Your task to perform on an android device: open app "TextNow: Call + Text Unlimited" (install if not already installed), go to login, and select forgot password Image 0: 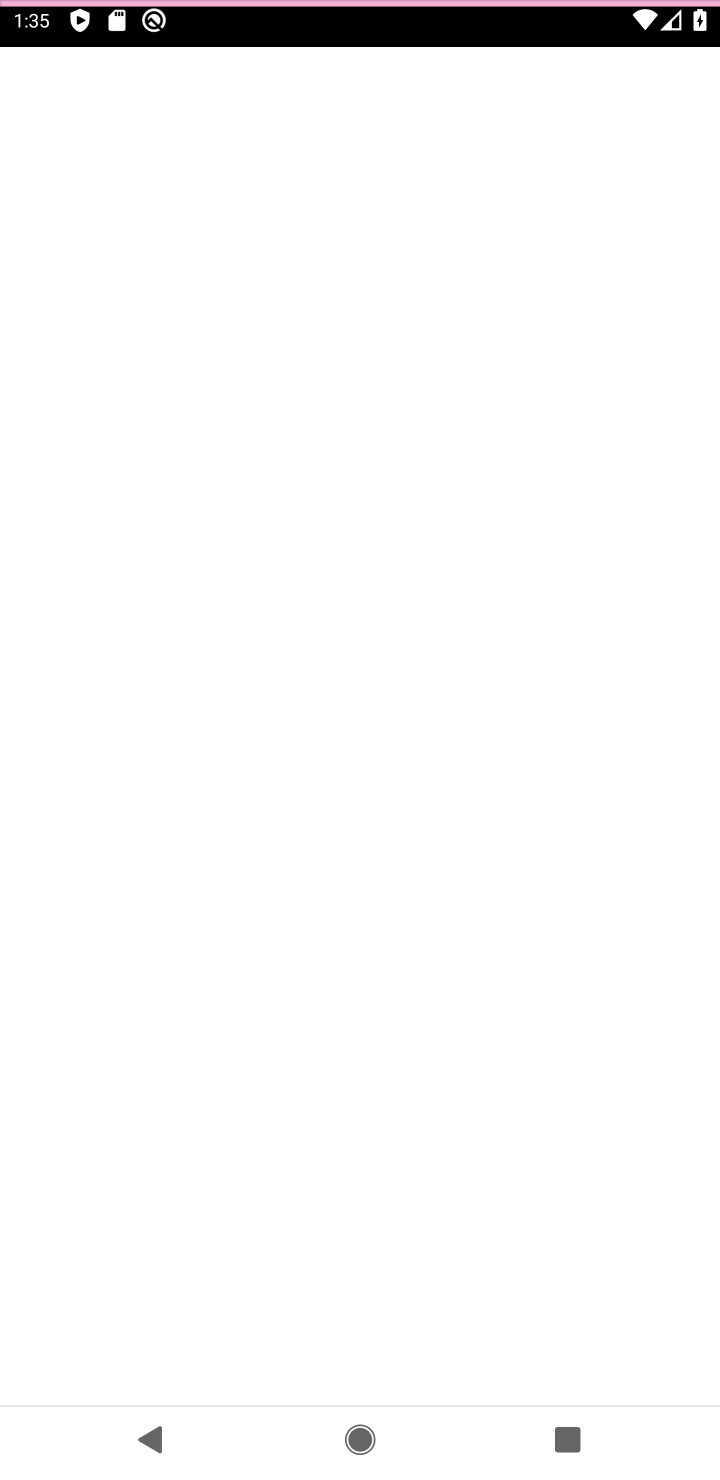
Step 0: press home button
Your task to perform on an android device: open app "TextNow: Call + Text Unlimited" (install if not already installed), go to login, and select forgot password Image 1: 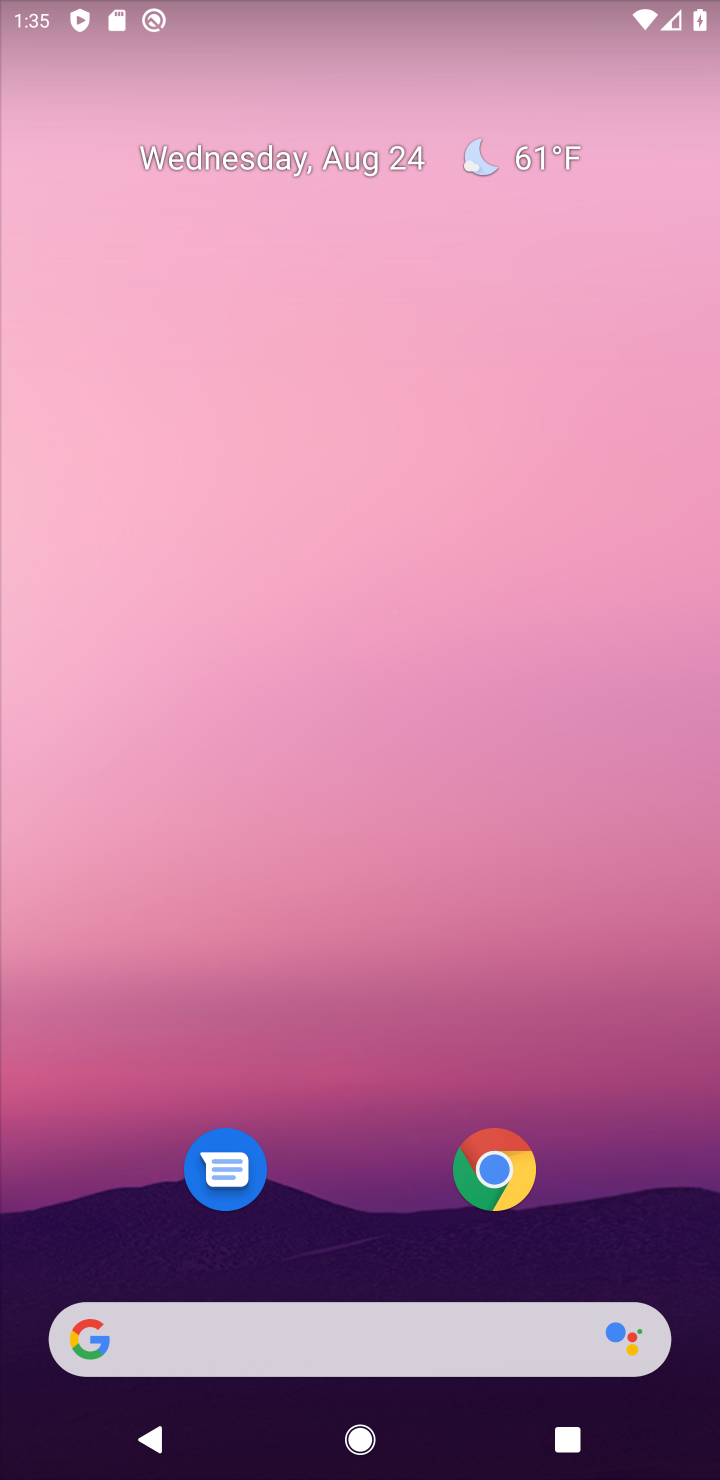
Step 1: drag from (406, 1259) to (474, 175)
Your task to perform on an android device: open app "TextNow: Call + Text Unlimited" (install if not already installed), go to login, and select forgot password Image 2: 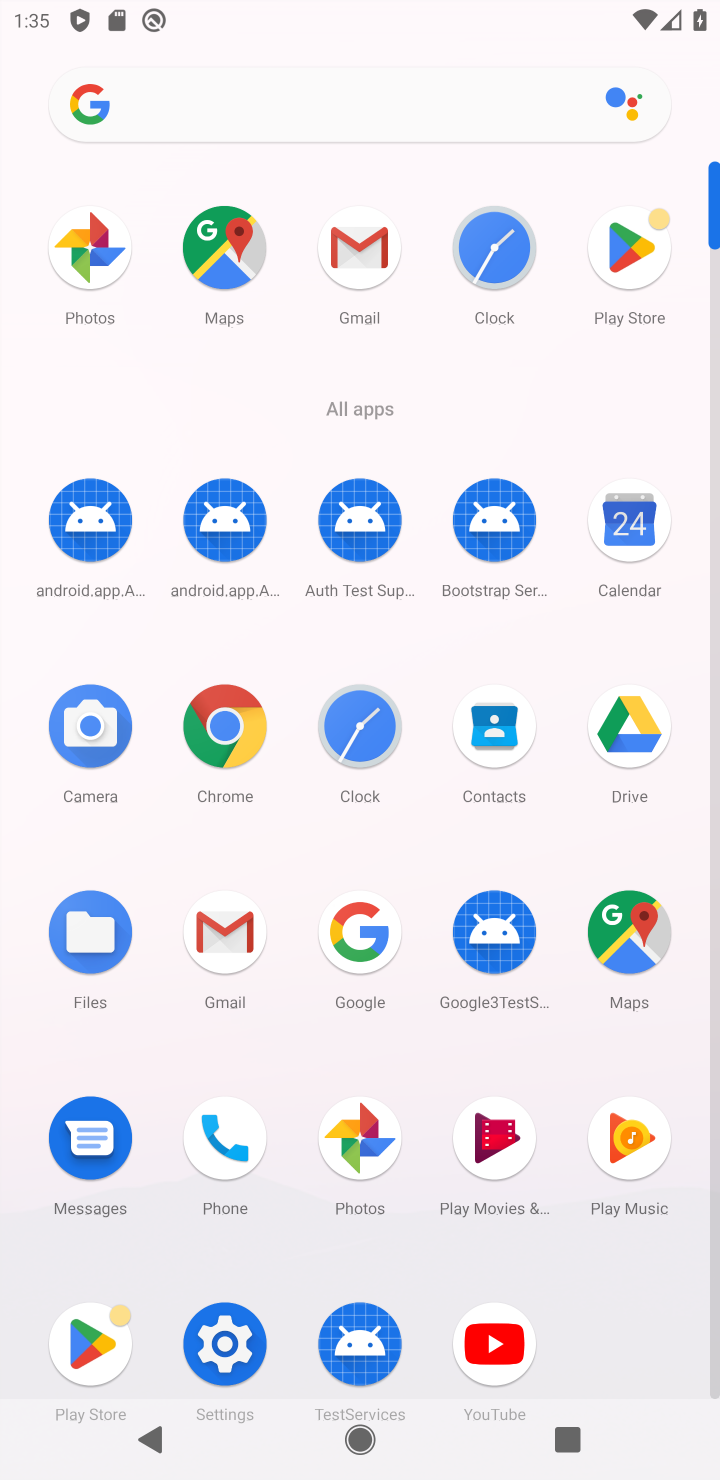
Step 2: click (63, 1324)
Your task to perform on an android device: open app "TextNow: Call + Text Unlimited" (install if not already installed), go to login, and select forgot password Image 3: 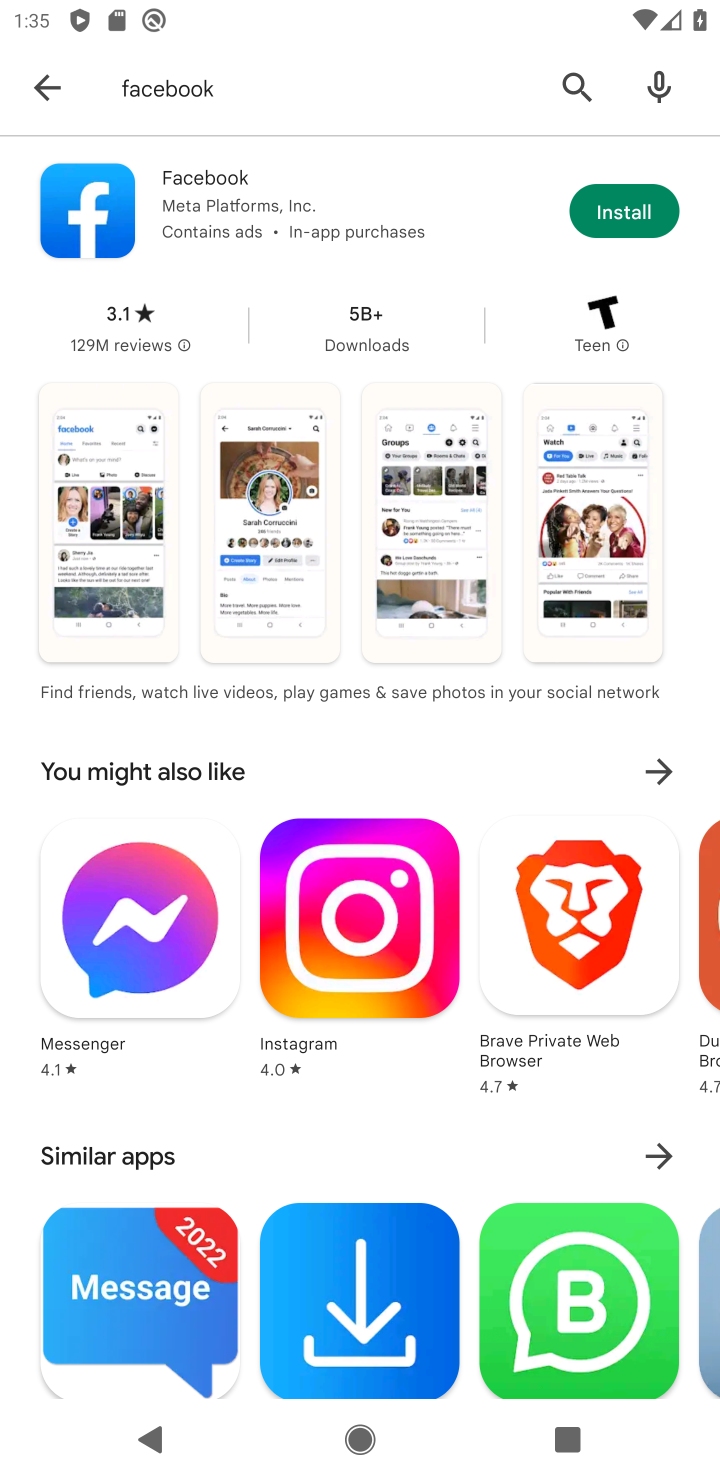
Step 3: click (46, 118)
Your task to perform on an android device: open app "TextNow: Call + Text Unlimited" (install if not already installed), go to login, and select forgot password Image 4: 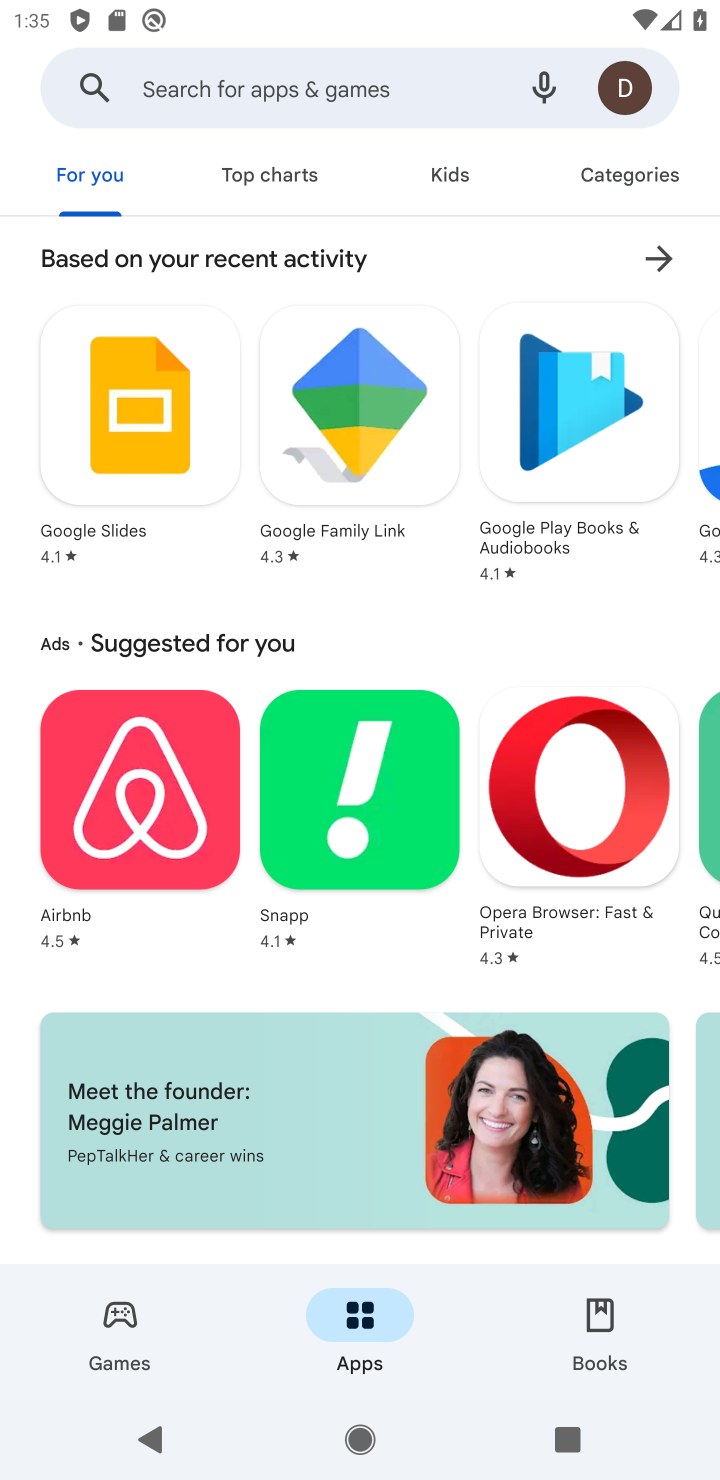
Step 4: click (249, 87)
Your task to perform on an android device: open app "TextNow: Call + Text Unlimited" (install if not already installed), go to login, and select forgot password Image 5: 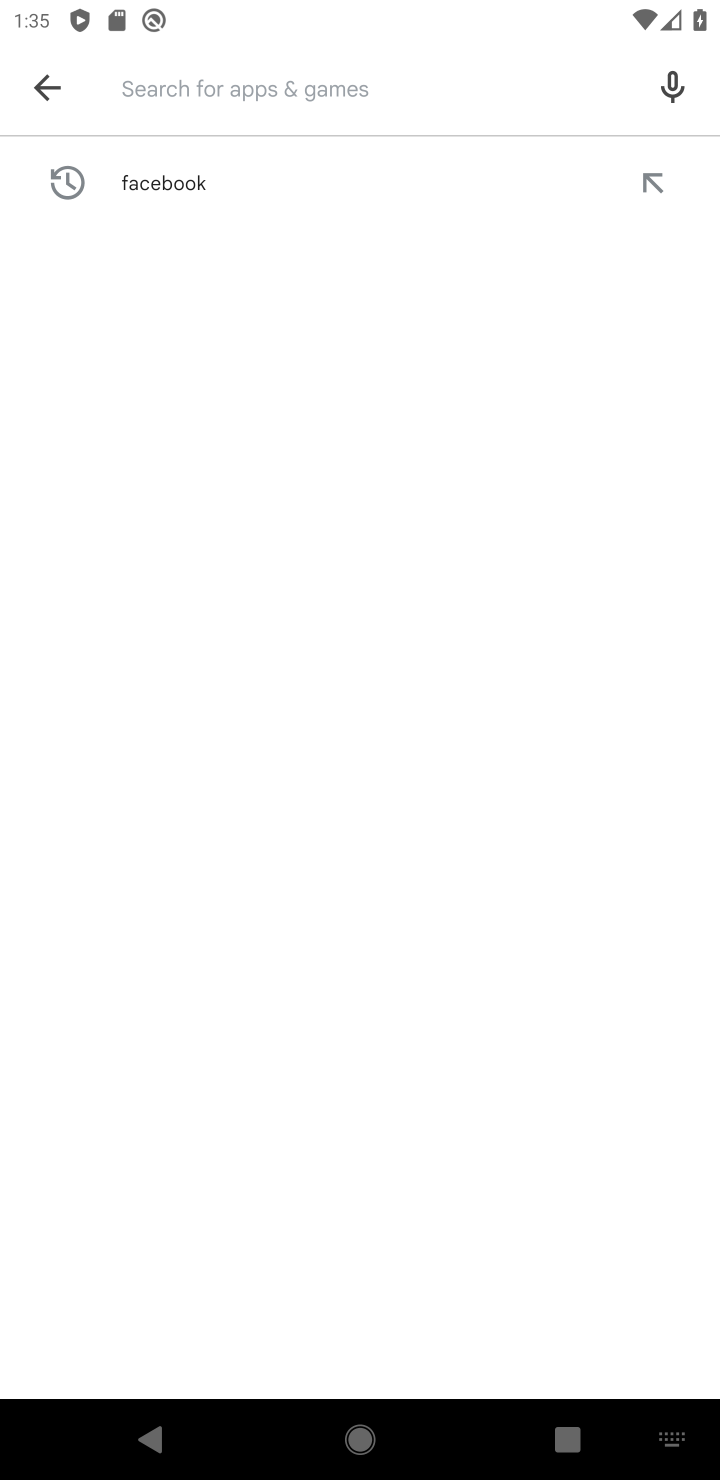
Step 5: type "TextNow: Call + Text Unlimited"
Your task to perform on an android device: open app "TextNow: Call + Text Unlimited" (install if not already installed), go to login, and select forgot password Image 6: 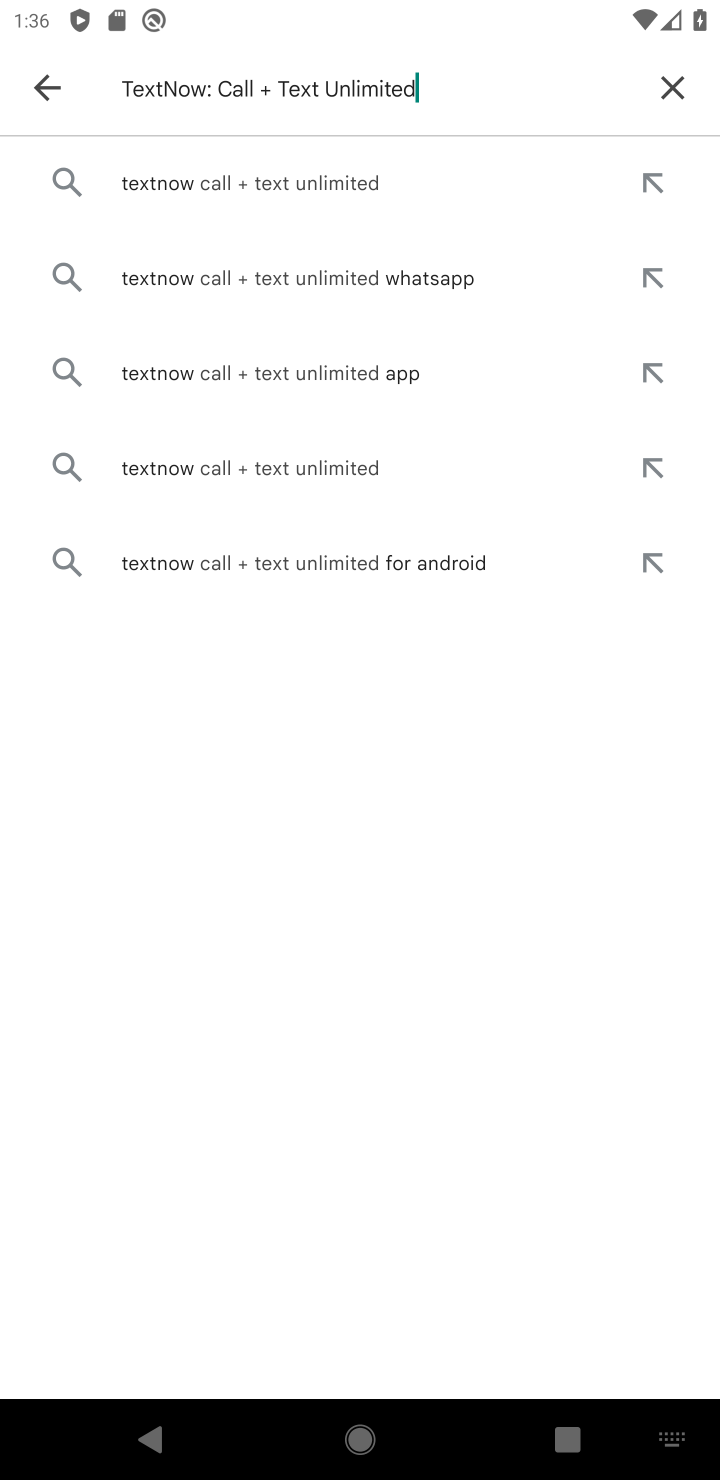
Step 6: click (156, 193)
Your task to perform on an android device: open app "TextNow: Call + Text Unlimited" (install if not already installed), go to login, and select forgot password Image 7: 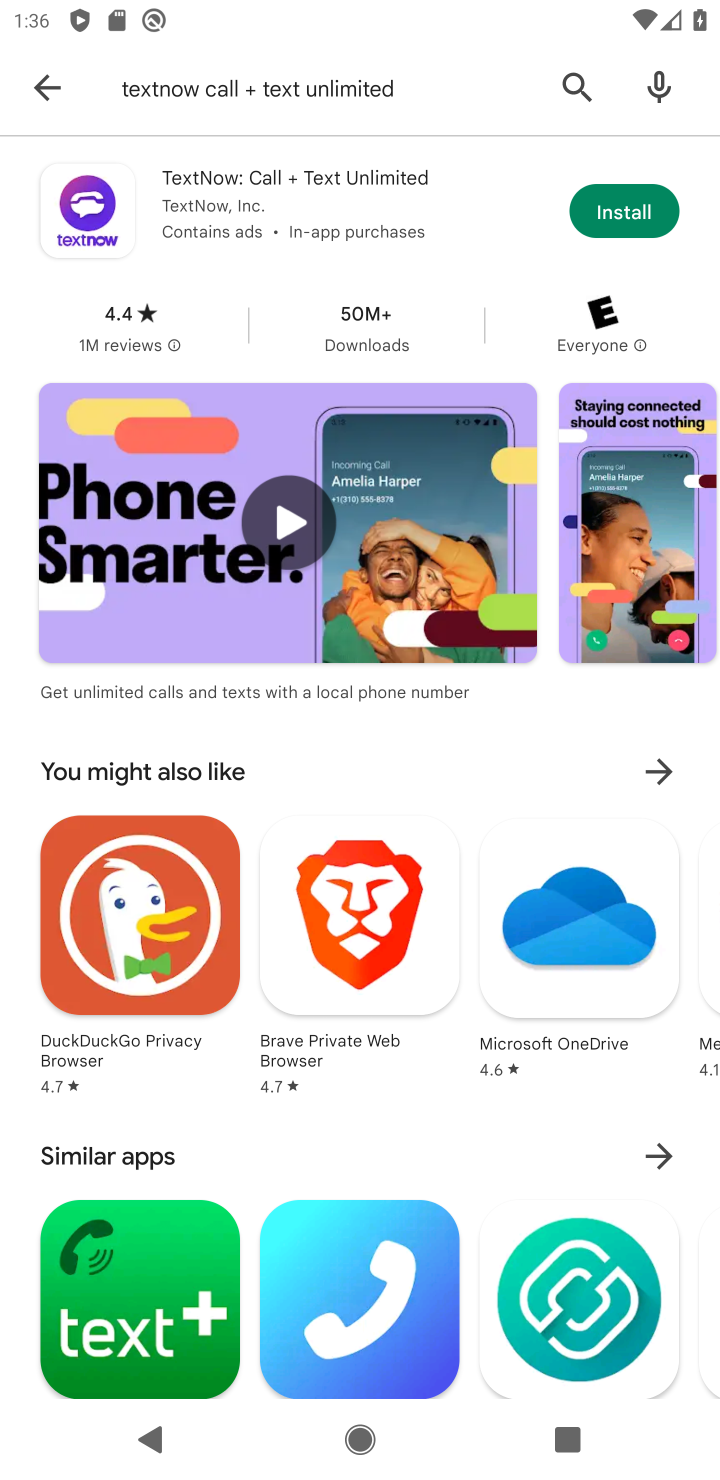
Step 7: click (637, 241)
Your task to perform on an android device: open app "TextNow: Call + Text Unlimited" (install if not already installed), go to login, and select forgot password Image 8: 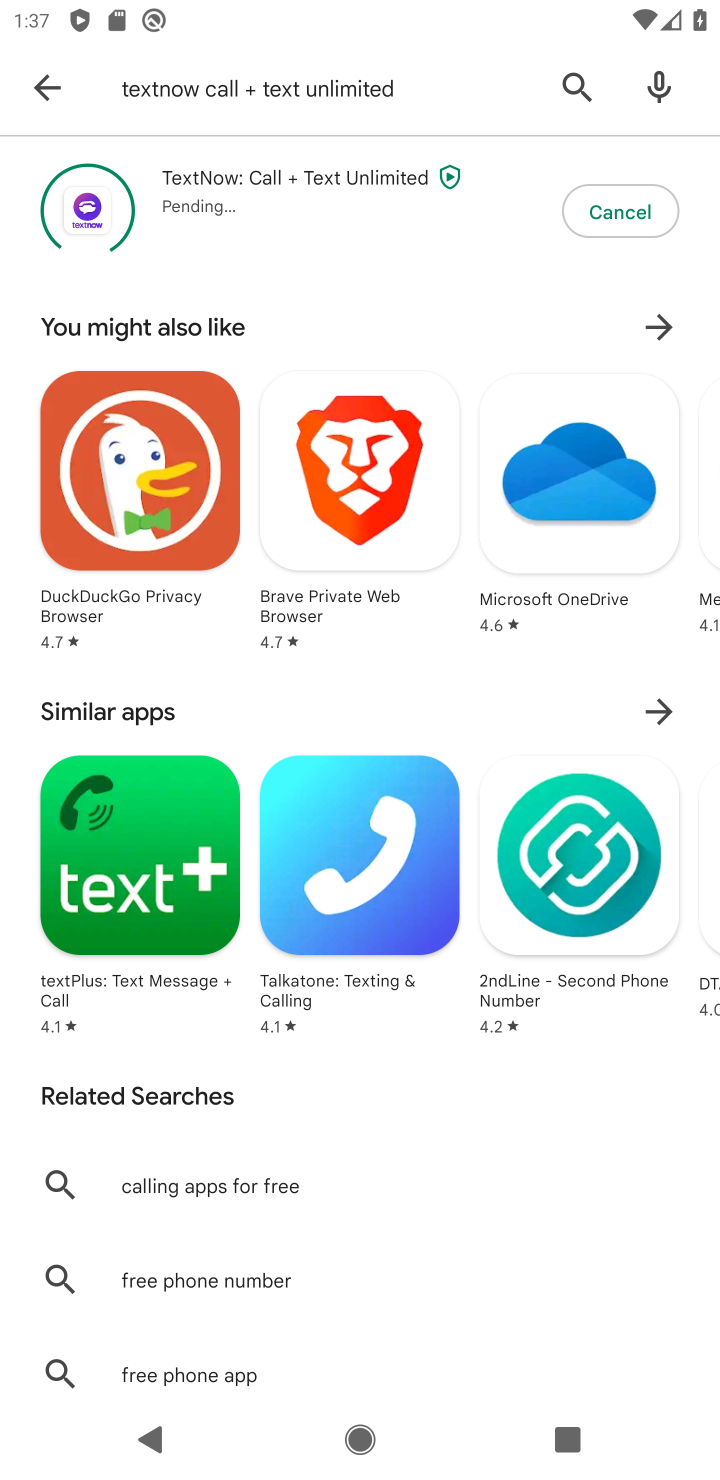
Step 8: click (60, 82)
Your task to perform on an android device: open app "TextNow: Call + Text Unlimited" (install if not already installed), go to login, and select forgot password Image 9: 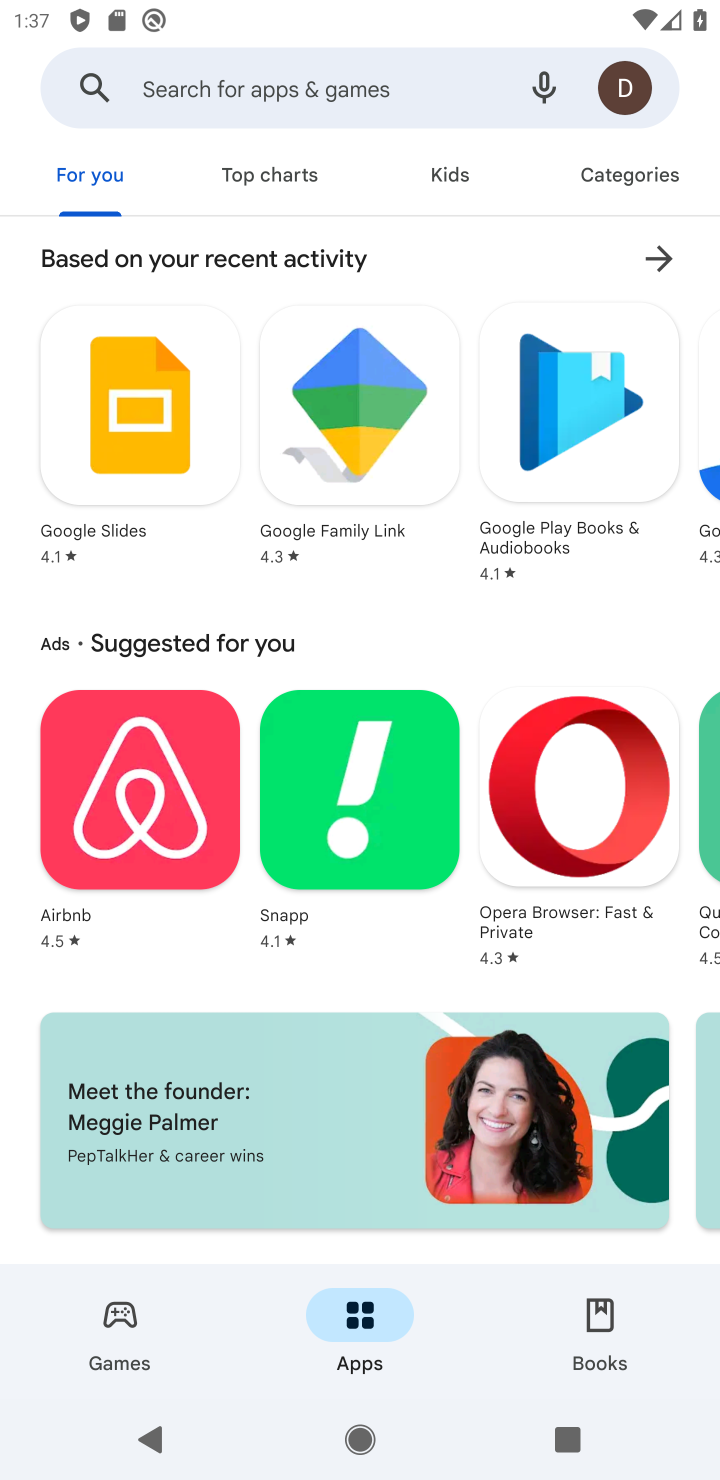
Step 9: click (638, 94)
Your task to perform on an android device: open app "TextNow: Call + Text Unlimited" (install if not already installed), go to login, and select forgot password Image 10: 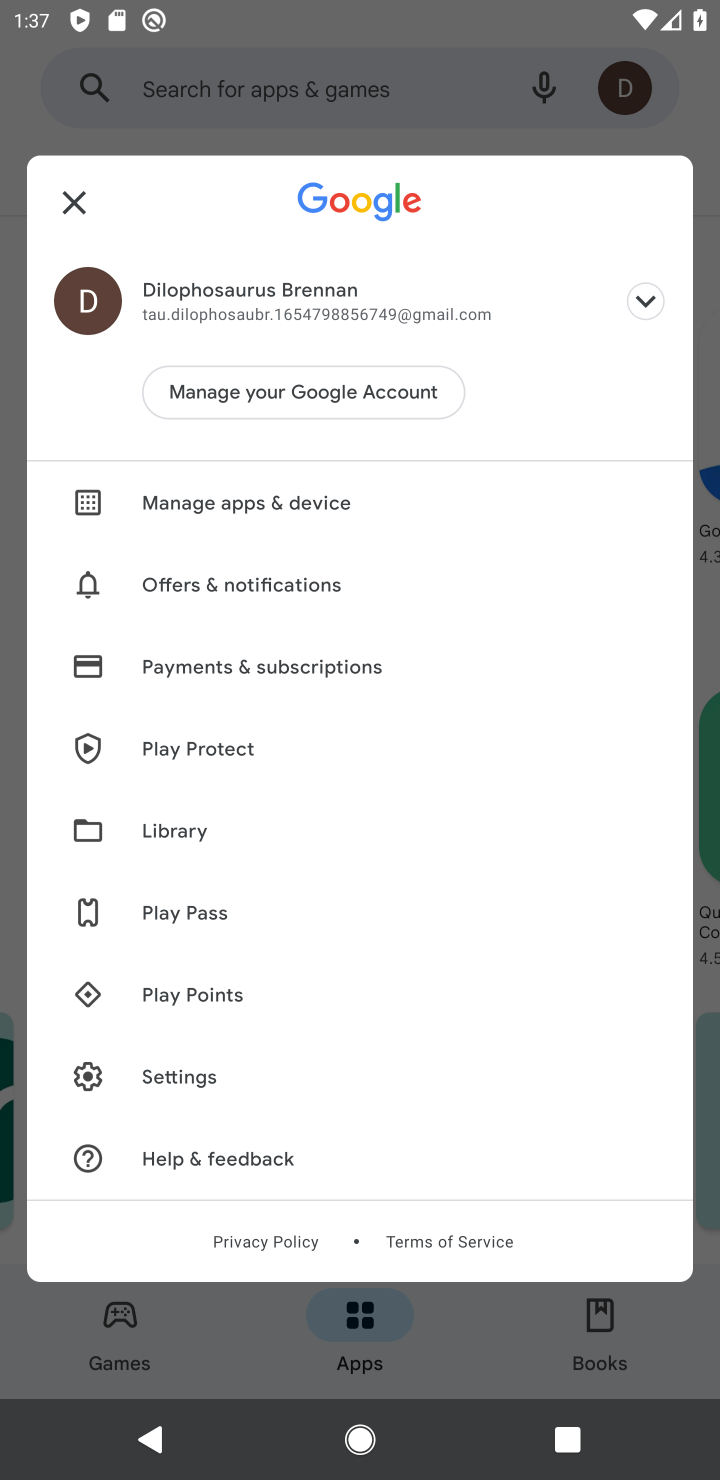
Step 10: click (229, 500)
Your task to perform on an android device: open app "TextNow: Call + Text Unlimited" (install if not already installed), go to login, and select forgot password Image 11: 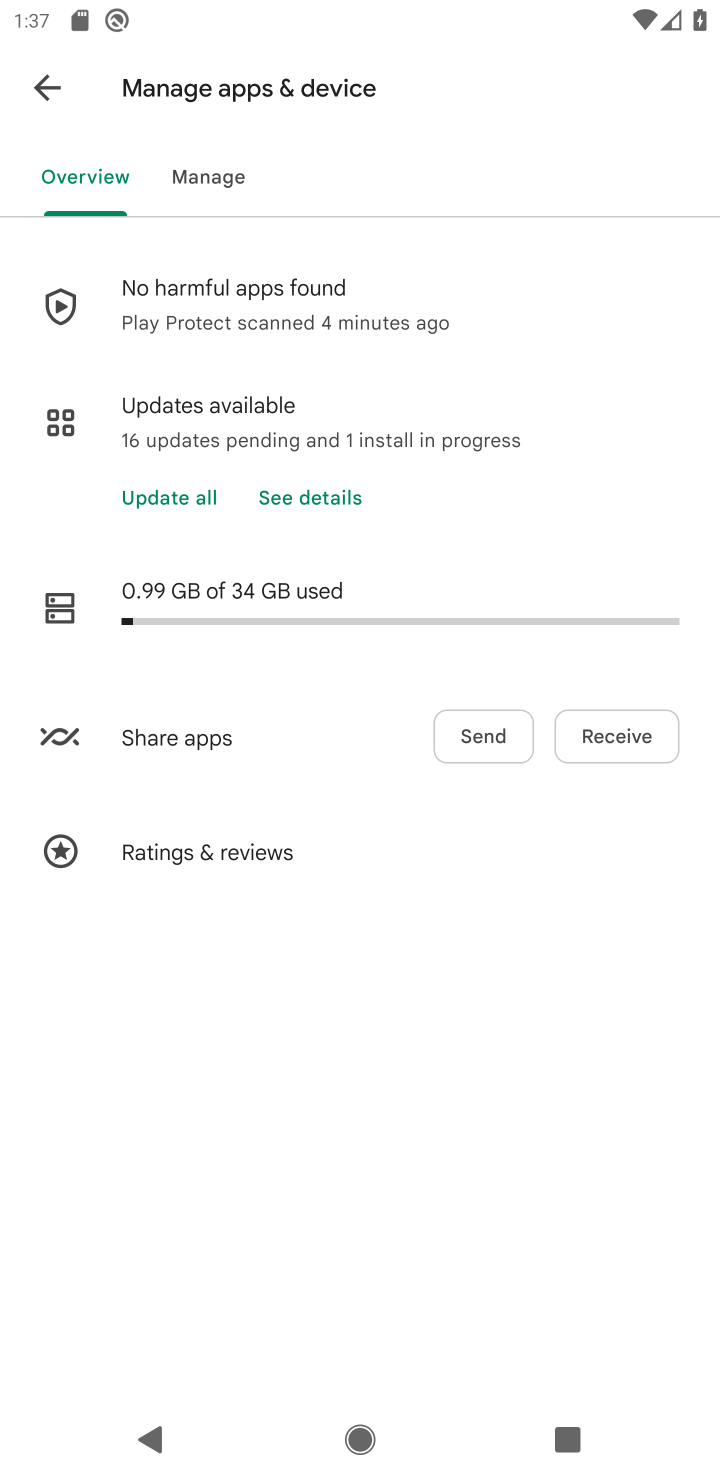
Step 11: click (196, 425)
Your task to perform on an android device: open app "TextNow: Call + Text Unlimited" (install if not already installed), go to login, and select forgot password Image 12: 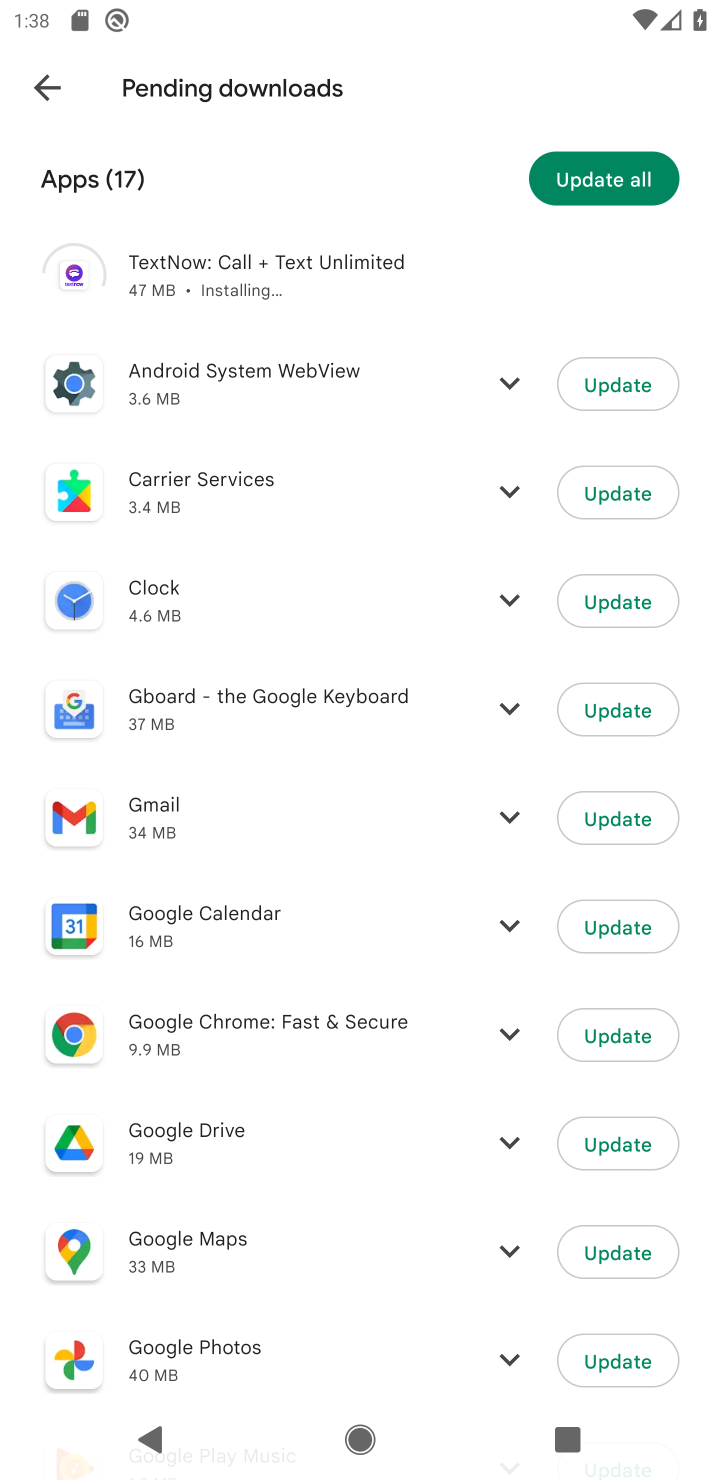
Step 12: click (271, 295)
Your task to perform on an android device: open app "TextNow: Call + Text Unlimited" (install if not already installed), go to login, and select forgot password Image 13: 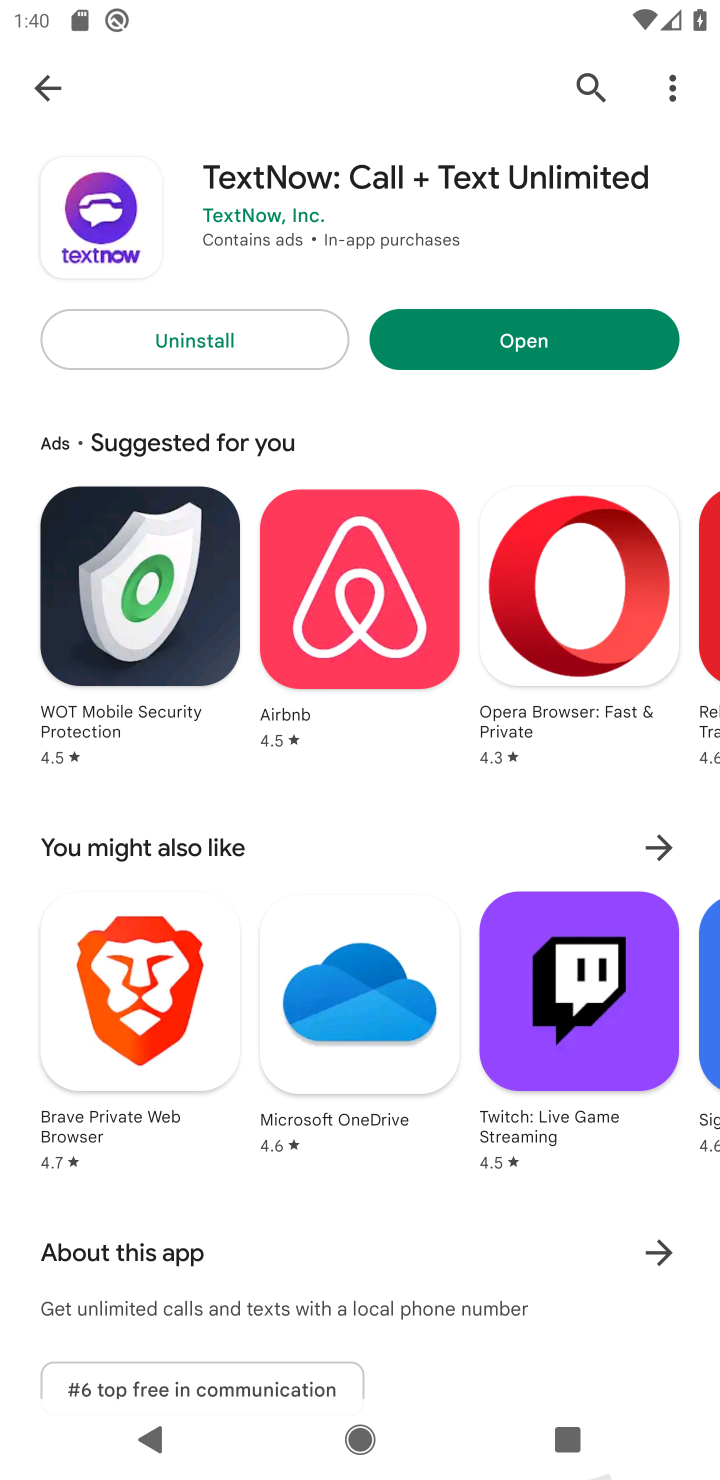
Step 13: click (591, 334)
Your task to perform on an android device: open app "TextNow: Call + Text Unlimited" (install if not already installed), go to login, and select forgot password Image 14: 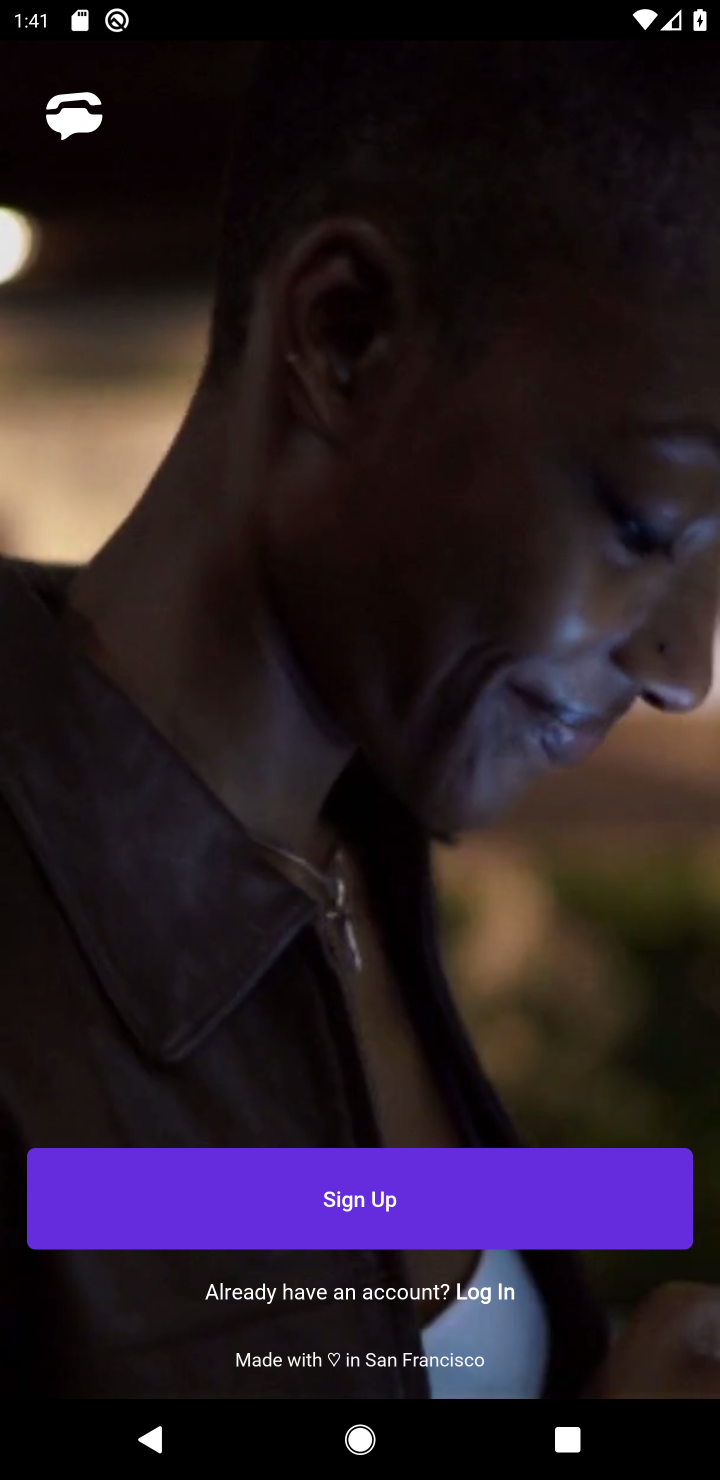
Step 14: click (475, 1282)
Your task to perform on an android device: open app "TextNow: Call + Text Unlimited" (install if not already installed), go to login, and select forgot password Image 15: 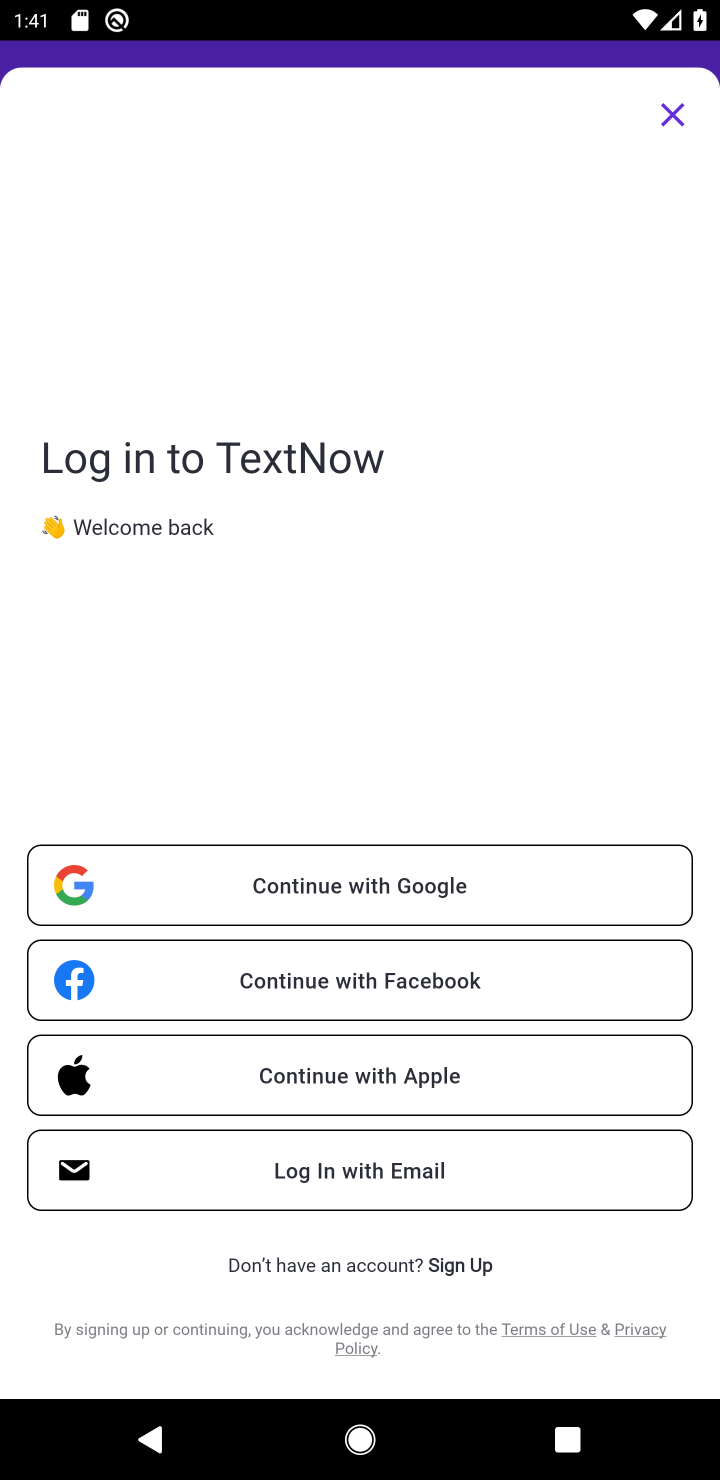
Step 15: click (437, 885)
Your task to perform on an android device: open app "TextNow: Call + Text Unlimited" (install if not already installed), go to login, and select forgot password Image 16: 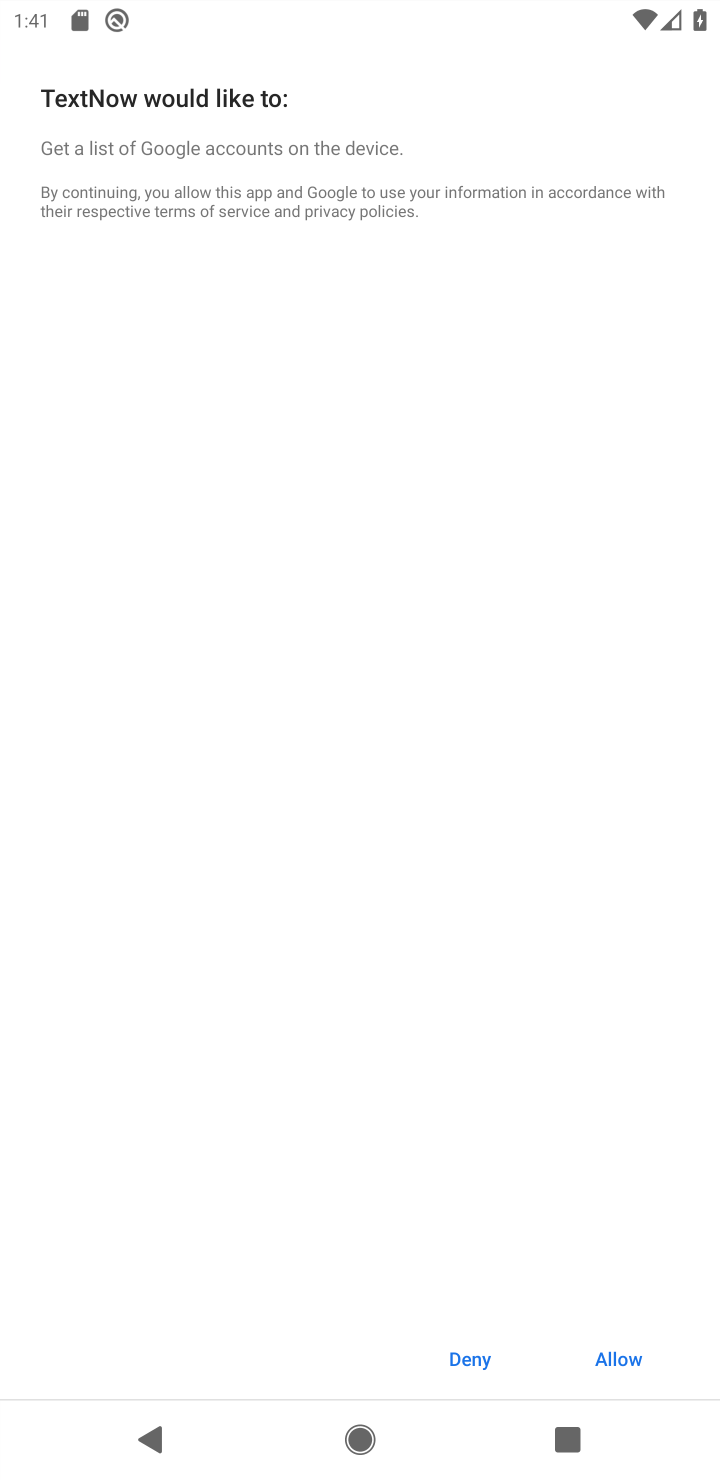
Step 16: click (621, 1337)
Your task to perform on an android device: open app "TextNow: Call + Text Unlimited" (install if not already installed), go to login, and select forgot password Image 17: 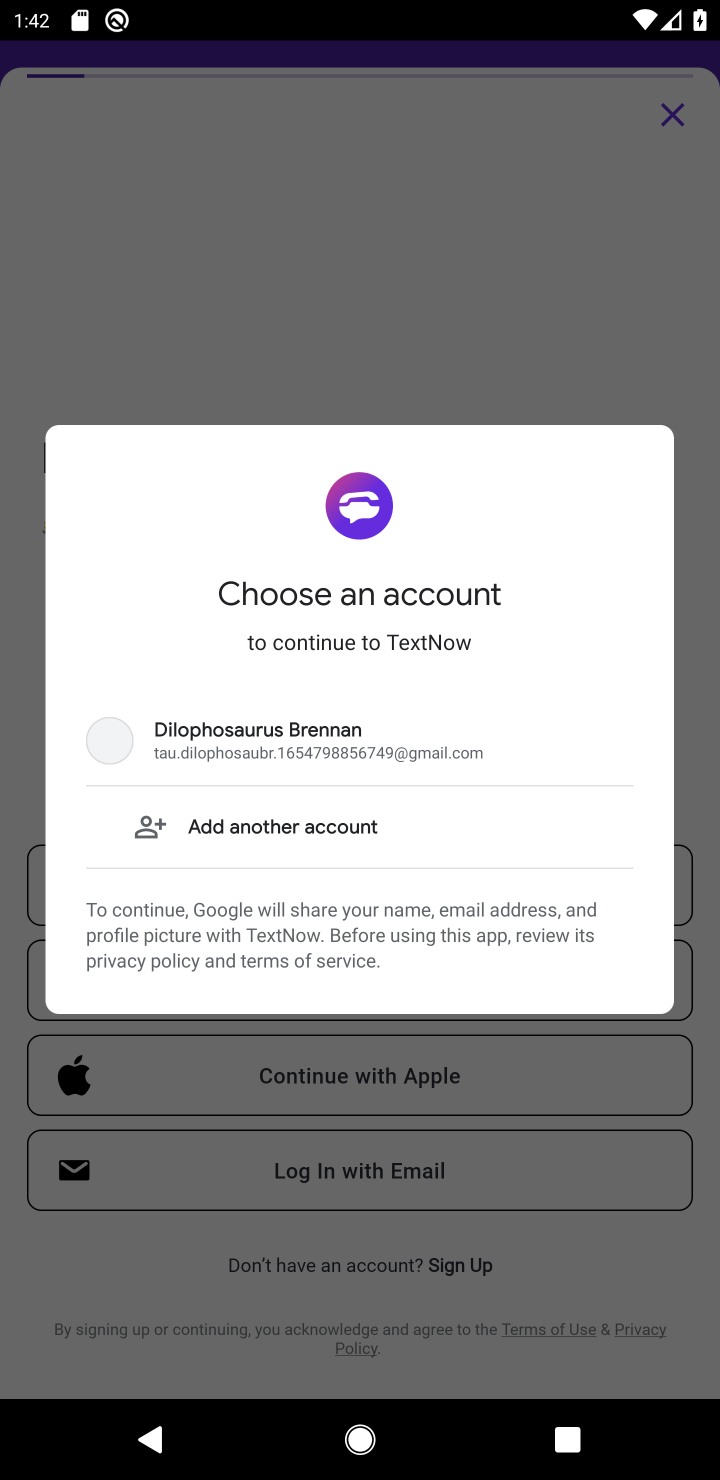
Step 17: task complete